Your task to perform on an android device: Show me productivity apps on the Play Store Image 0: 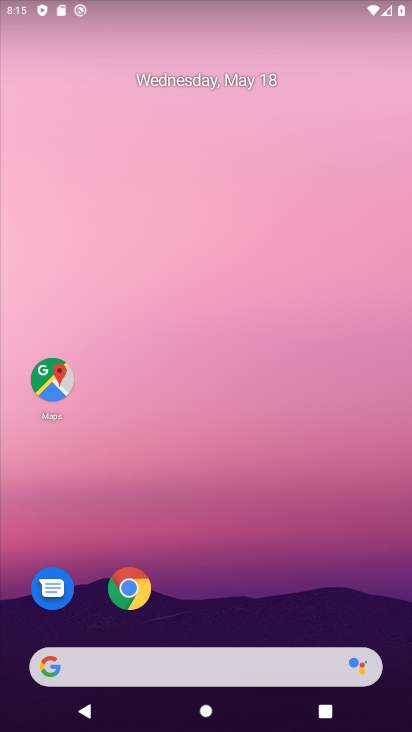
Step 0: drag from (358, 625) to (319, 6)
Your task to perform on an android device: Show me productivity apps on the Play Store Image 1: 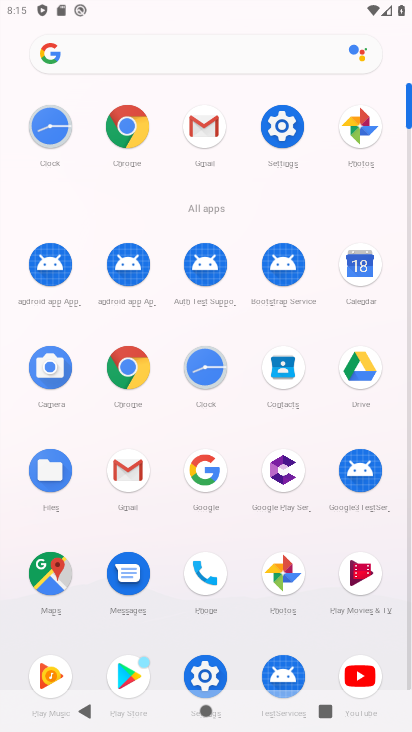
Step 1: click (131, 664)
Your task to perform on an android device: Show me productivity apps on the Play Store Image 2: 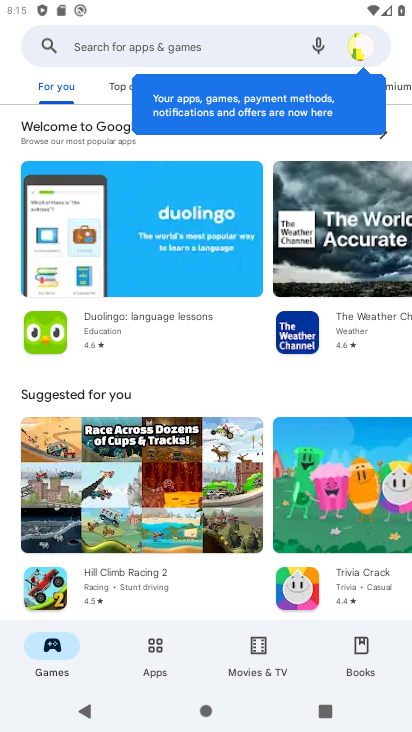
Step 2: click (149, 657)
Your task to perform on an android device: Show me productivity apps on the Play Store Image 3: 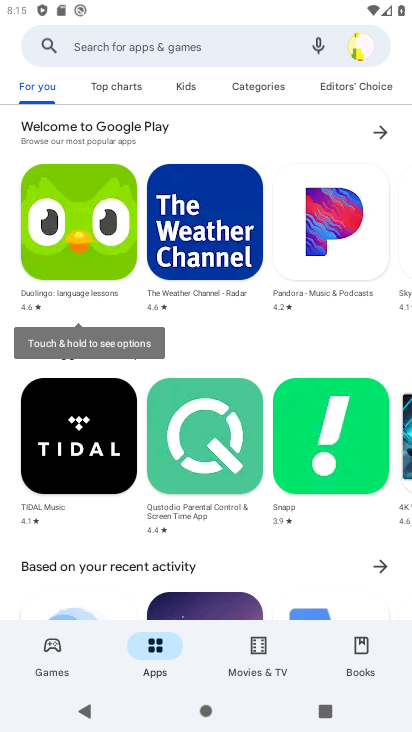
Step 3: click (252, 91)
Your task to perform on an android device: Show me productivity apps on the Play Store Image 4: 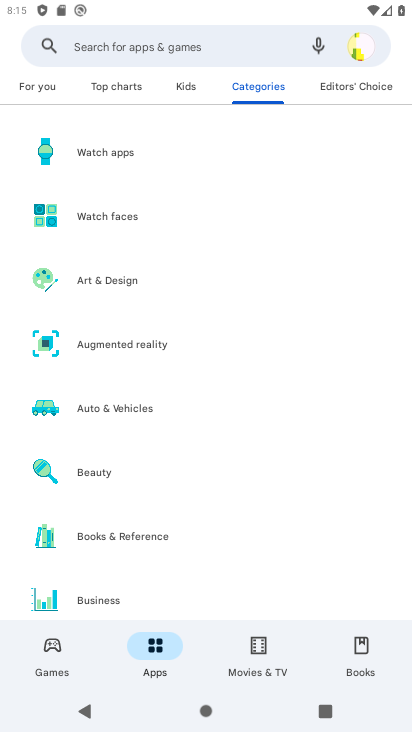
Step 4: drag from (230, 557) to (207, 74)
Your task to perform on an android device: Show me productivity apps on the Play Store Image 5: 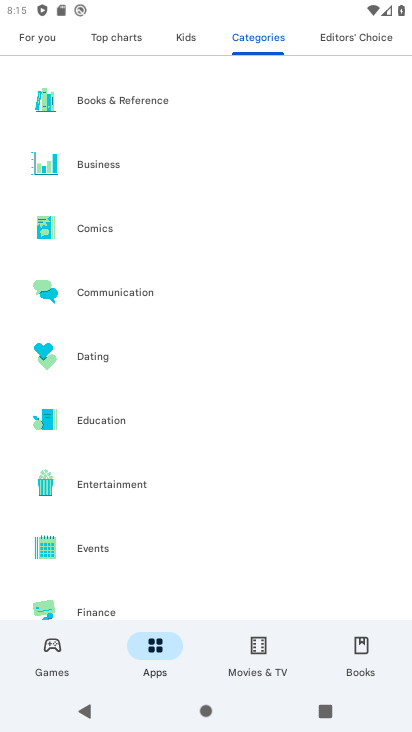
Step 5: drag from (173, 572) to (202, 77)
Your task to perform on an android device: Show me productivity apps on the Play Store Image 6: 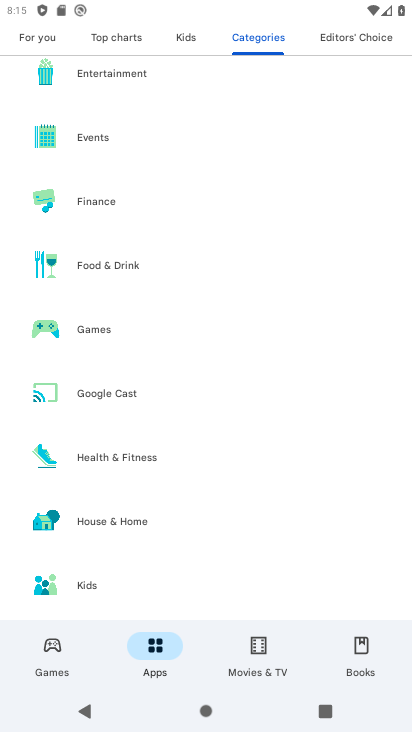
Step 6: drag from (192, 537) to (188, 77)
Your task to perform on an android device: Show me productivity apps on the Play Store Image 7: 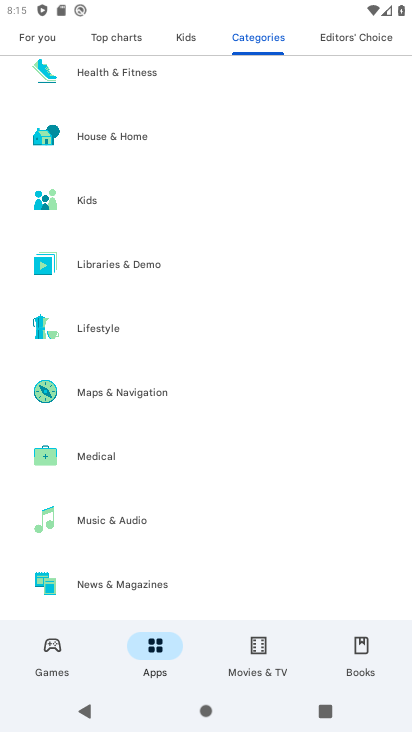
Step 7: drag from (164, 461) to (168, 61)
Your task to perform on an android device: Show me productivity apps on the Play Store Image 8: 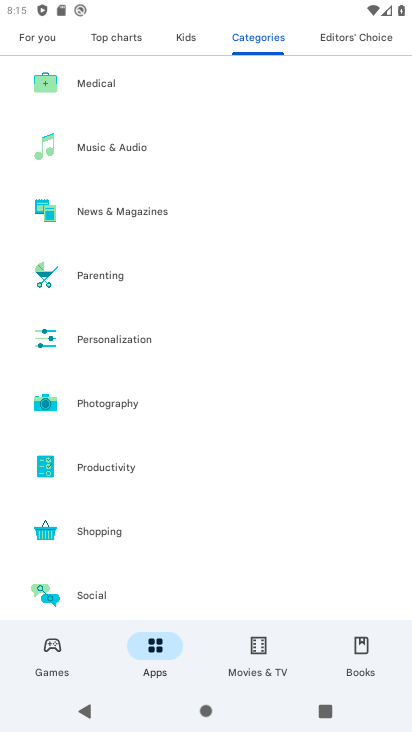
Step 8: click (89, 463)
Your task to perform on an android device: Show me productivity apps on the Play Store Image 9: 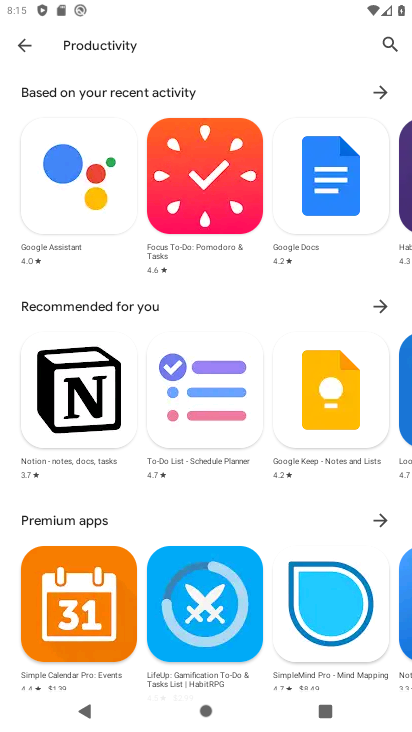
Step 9: task complete